Your task to perform on an android device: Open Google Chrome Image 0: 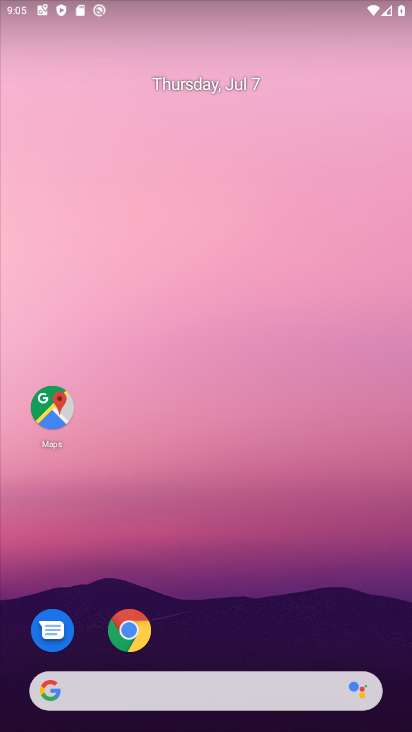
Step 0: click (182, 132)
Your task to perform on an android device: Open Google Chrome Image 1: 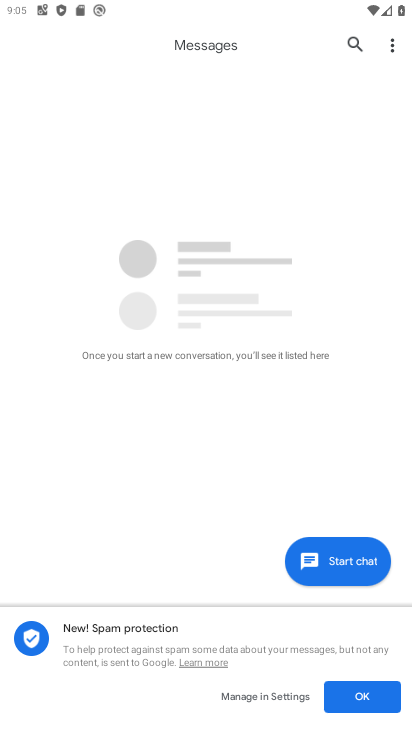
Step 1: press home button
Your task to perform on an android device: Open Google Chrome Image 2: 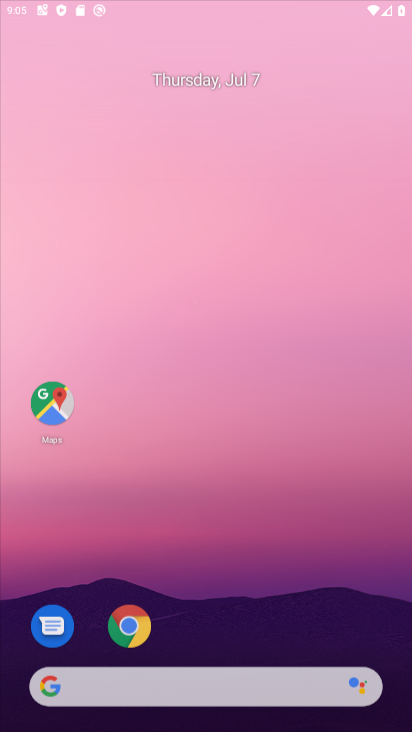
Step 2: drag from (205, 588) to (264, 30)
Your task to perform on an android device: Open Google Chrome Image 3: 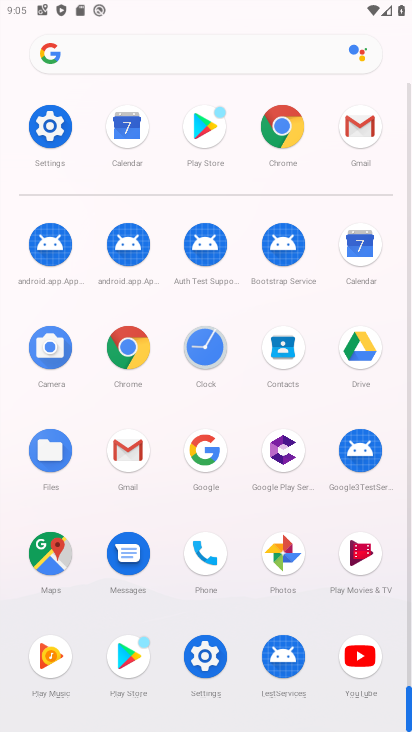
Step 3: click (275, 125)
Your task to perform on an android device: Open Google Chrome Image 4: 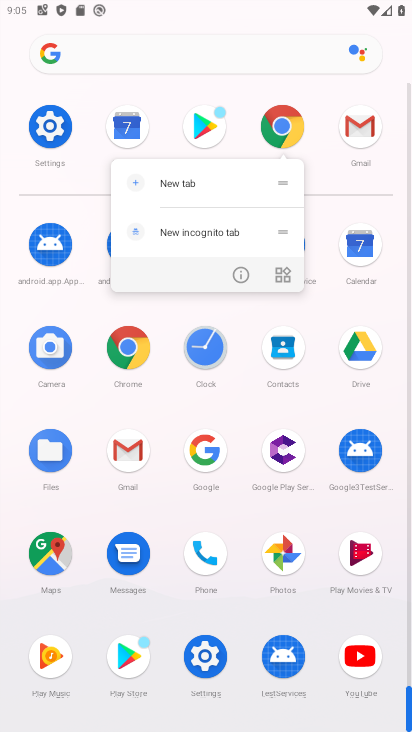
Step 4: click (244, 275)
Your task to perform on an android device: Open Google Chrome Image 5: 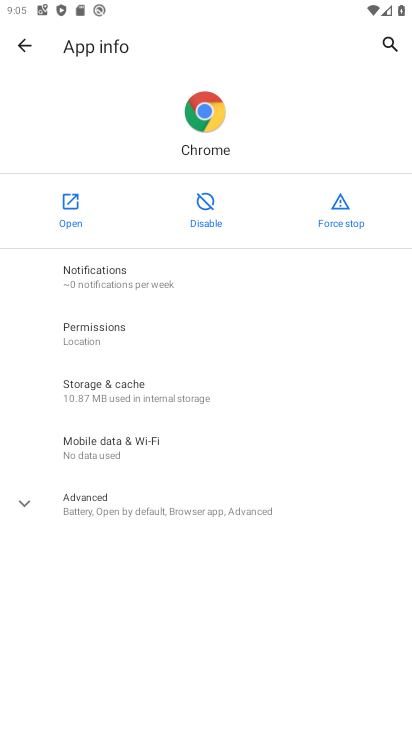
Step 5: click (67, 206)
Your task to perform on an android device: Open Google Chrome Image 6: 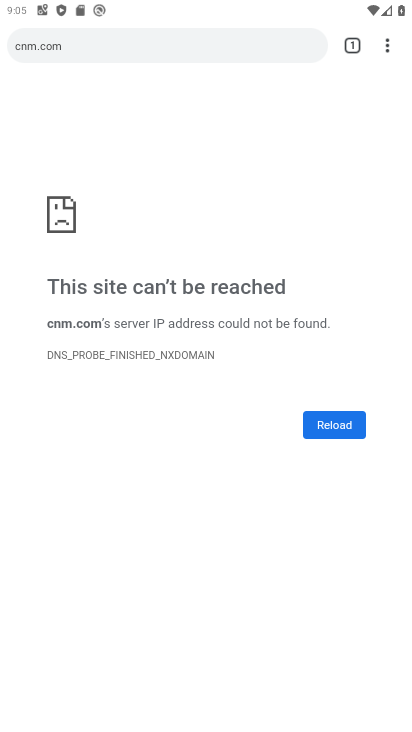
Step 6: click (382, 49)
Your task to perform on an android device: Open Google Chrome Image 7: 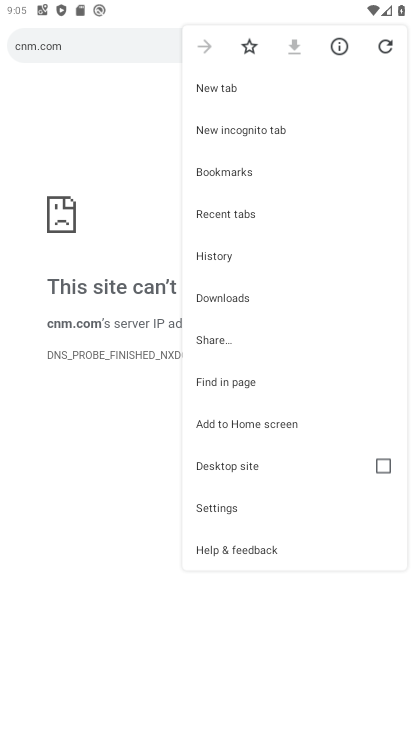
Step 7: drag from (246, 429) to (294, 141)
Your task to perform on an android device: Open Google Chrome Image 8: 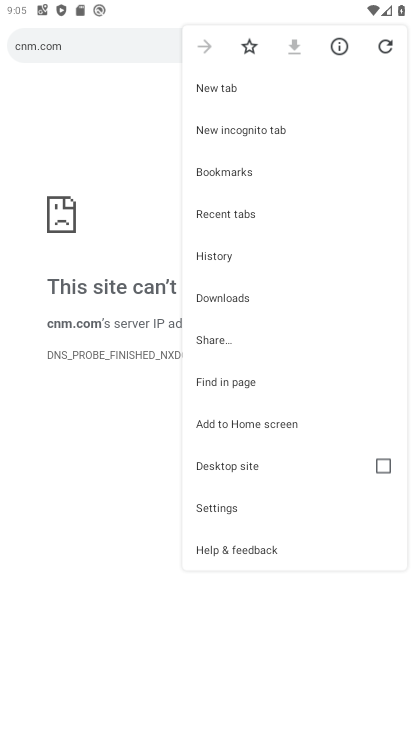
Step 8: click (144, 166)
Your task to perform on an android device: Open Google Chrome Image 9: 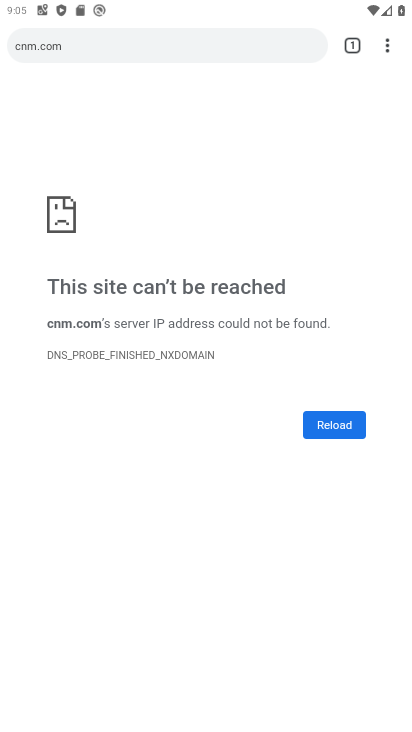
Step 9: task complete